Your task to perform on an android device: open chrome privacy settings Image 0: 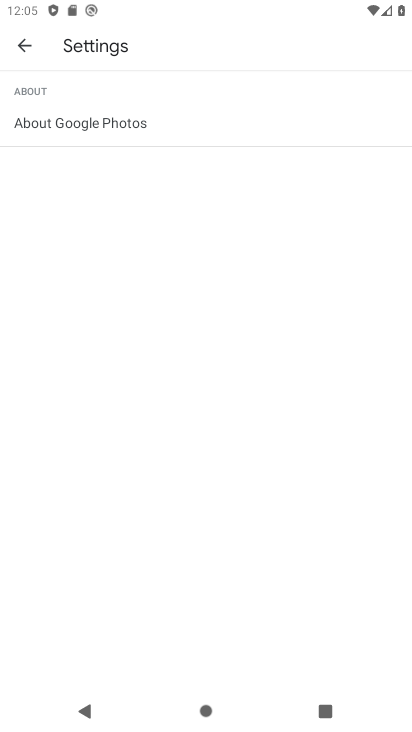
Step 0: press home button
Your task to perform on an android device: open chrome privacy settings Image 1: 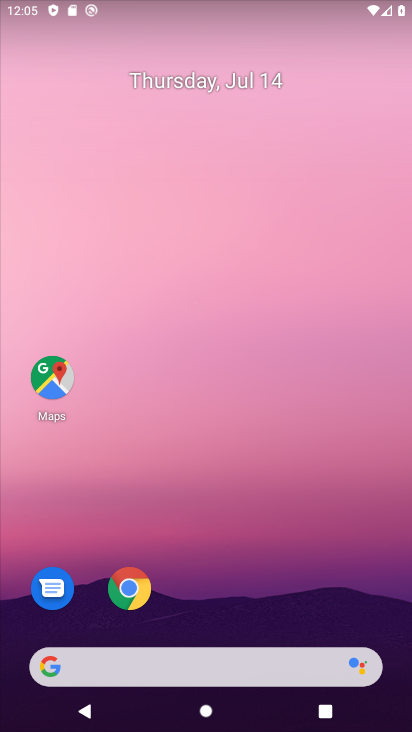
Step 1: click (140, 595)
Your task to perform on an android device: open chrome privacy settings Image 2: 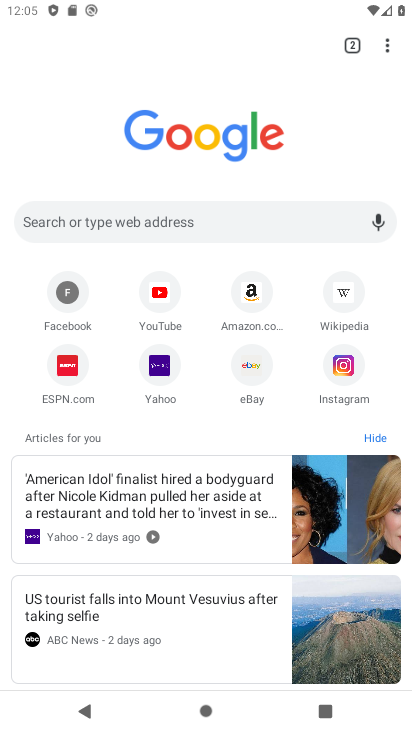
Step 2: click (391, 42)
Your task to perform on an android device: open chrome privacy settings Image 3: 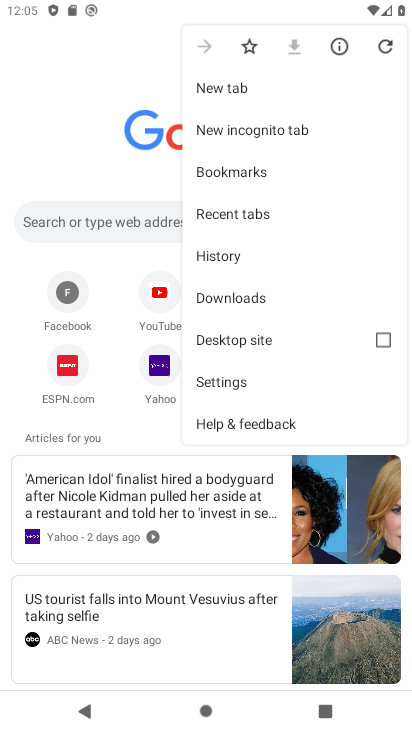
Step 3: click (238, 369)
Your task to perform on an android device: open chrome privacy settings Image 4: 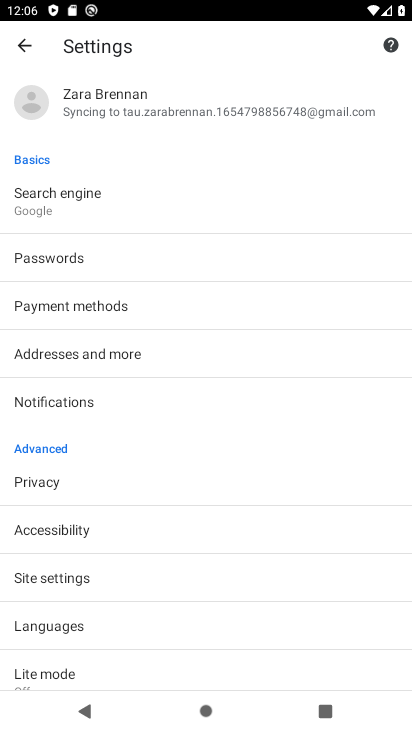
Step 4: click (138, 491)
Your task to perform on an android device: open chrome privacy settings Image 5: 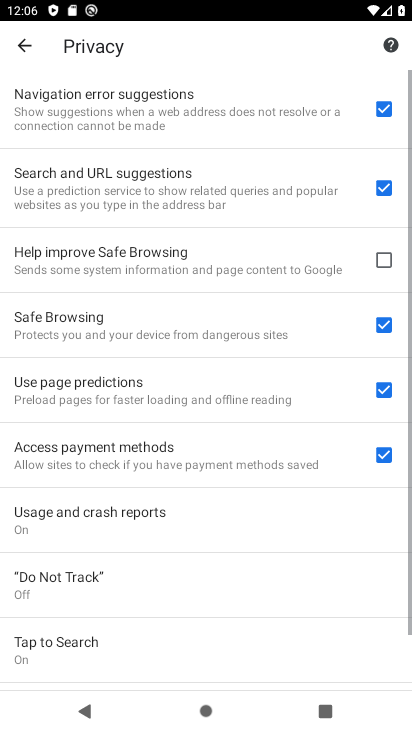
Step 5: task complete